Your task to perform on an android device: Go to settings Image 0: 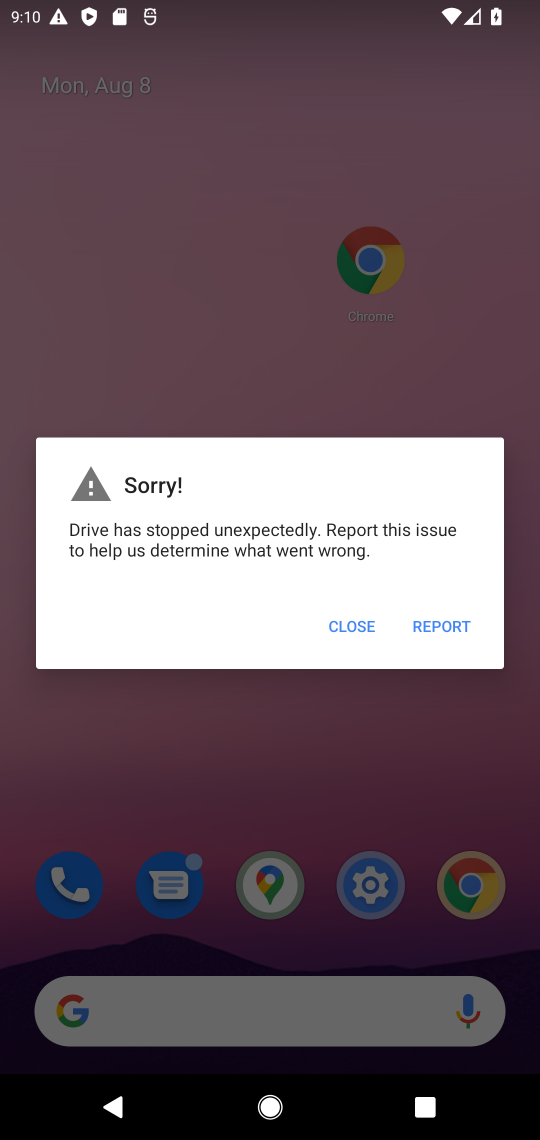
Step 0: press home button
Your task to perform on an android device: Go to settings Image 1: 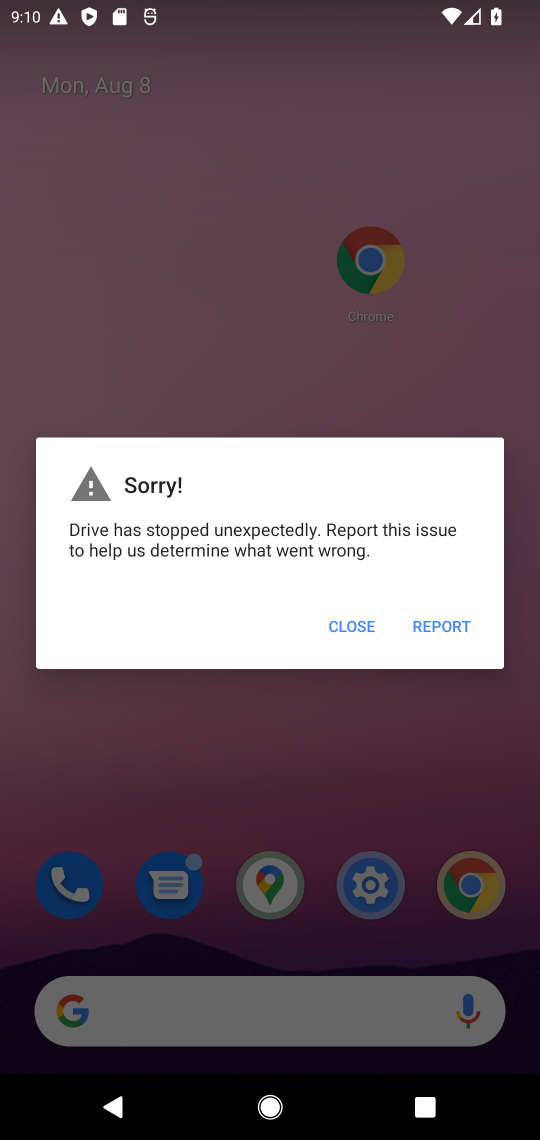
Step 1: press home button
Your task to perform on an android device: Go to settings Image 2: 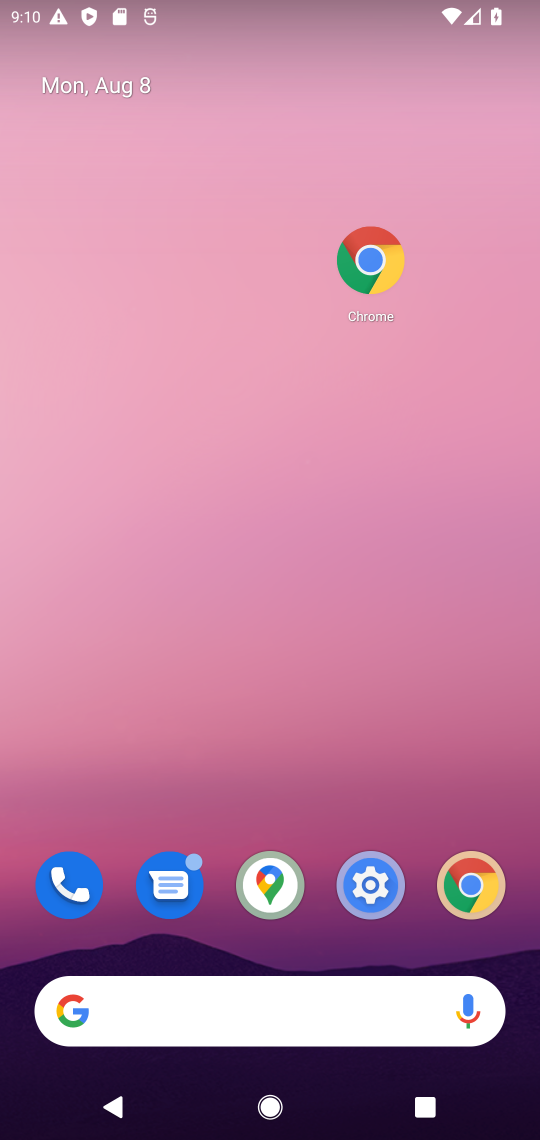
Step 2: press home button
Your task to perform on an android device: Go to settings Image 3: 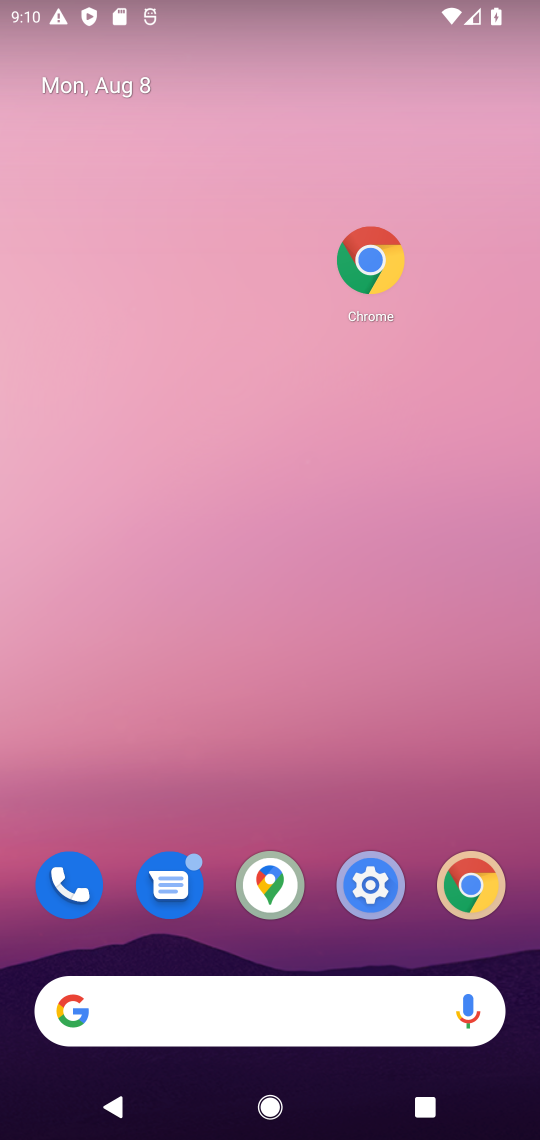
Step 3: click (375, 881)
Your task to perform on an android device: Go to settings Image 4: 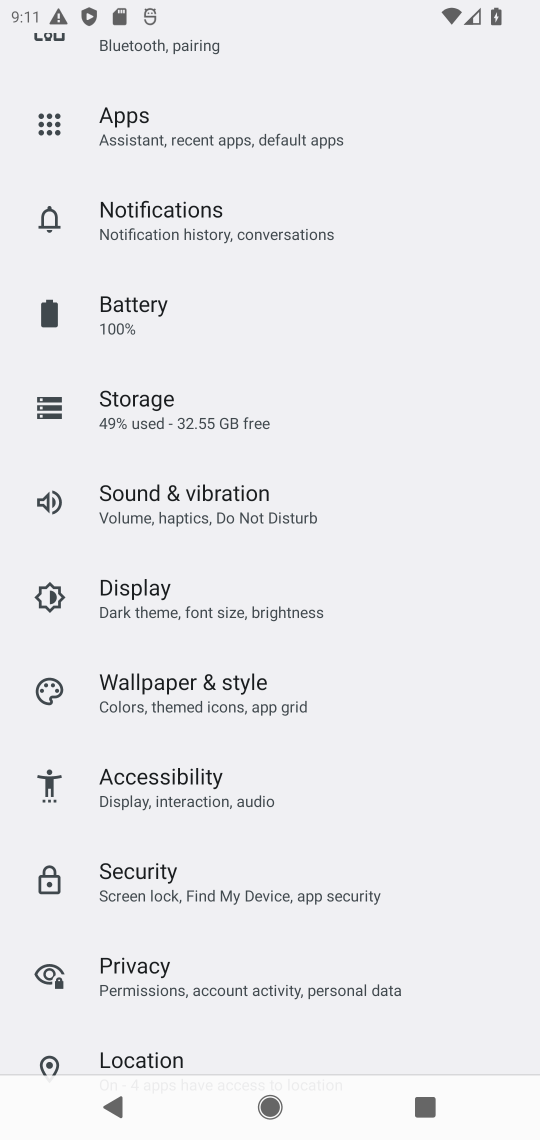
Step 4: task complete